Your task to perform on an android device: Search for vegetarian restaurants on Maps Image 0: 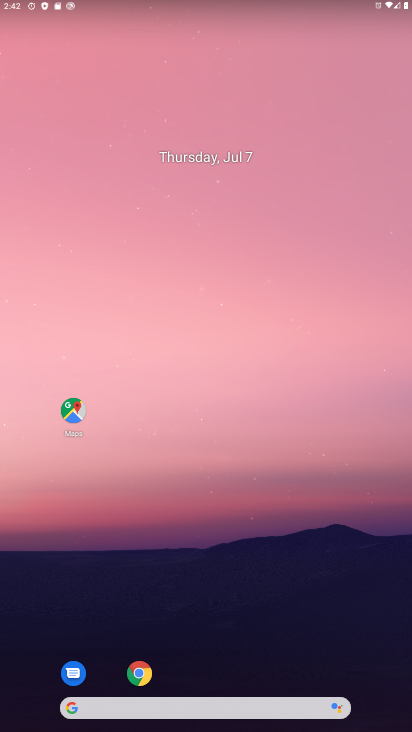
Step 0: click (72, 402)
Your task to perform on an android device: Search for vegetarian restaurants on Maps Image 1: 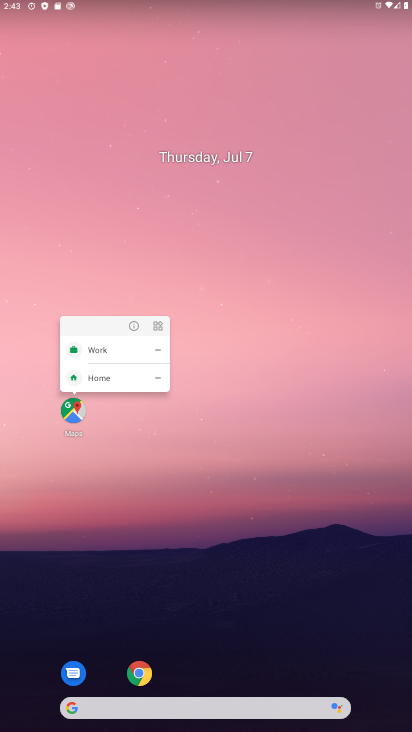
Step 1: click (200, 626)
Your task to perform on an android device: Search for vegetarian restaurants on Maps Image 2: 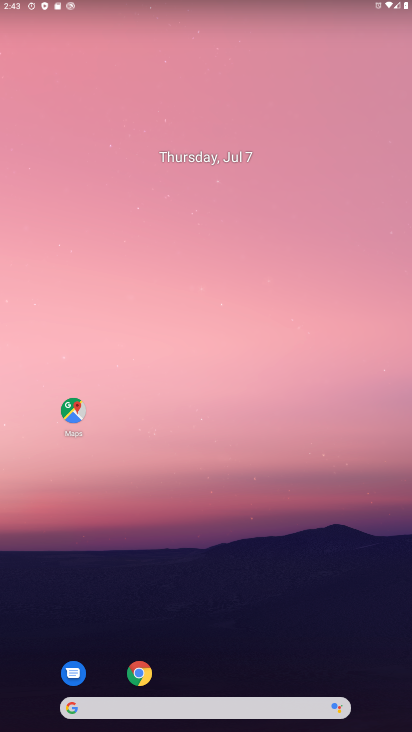
Step 2: drag from (200, 644) to (187, 132)
Your task to perform on an android device: Search for vegetarian restaurants on Maps Image 3: 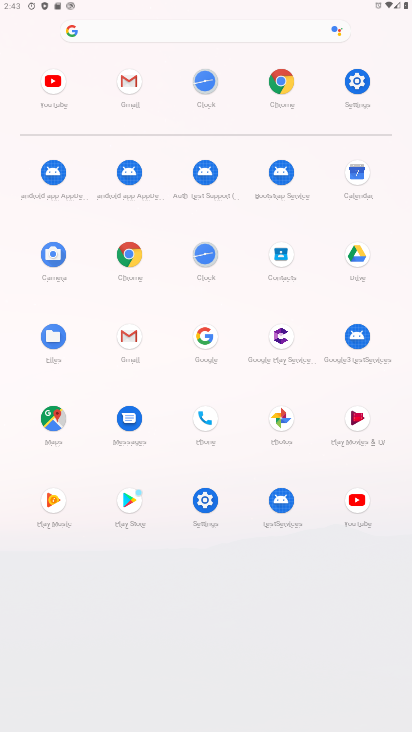
Step 3: click (59, 422)
Your task to perform on an android device: Search for vegetarian restaurants on Maps Image 4: 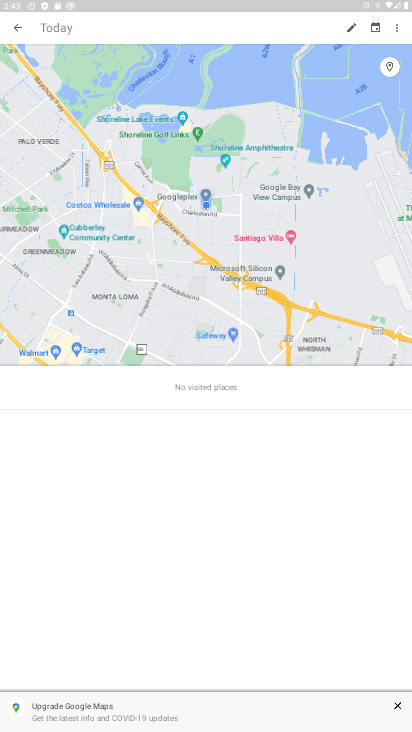
Step 4: click (5, 29)
Your task to perform on an android device: Search for vegetarian restaurants on Maps Image 5: 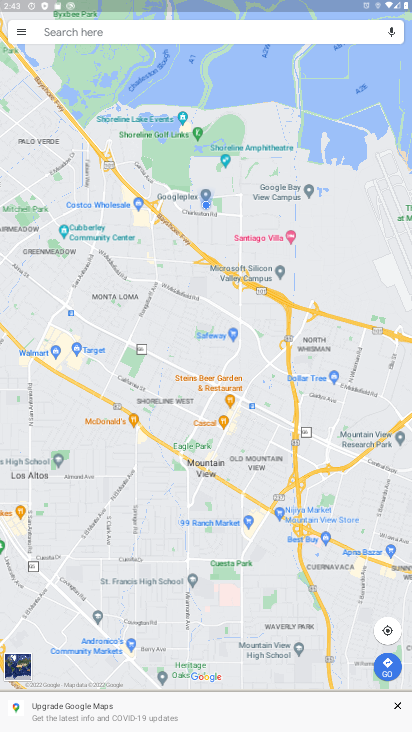
Step 5: click (74, 42)
Your task to perform on an android device: Search for vegetarian restaurants on Maps Image 6: 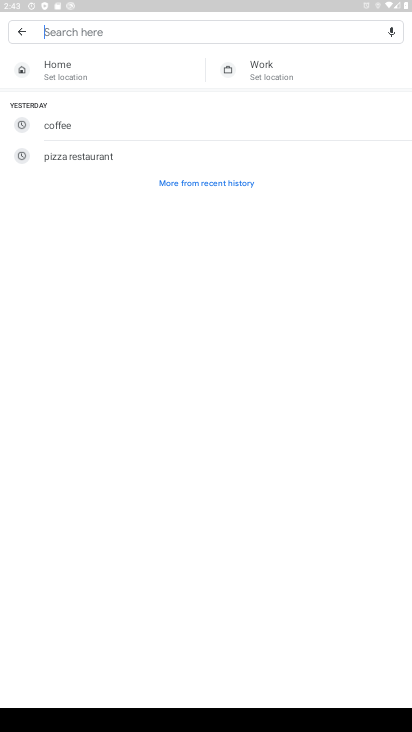
Step 6: type "vegetarian restaurants"
Your task to perform on an android device: Search for vegetarian restaurants on Maps Image 7: 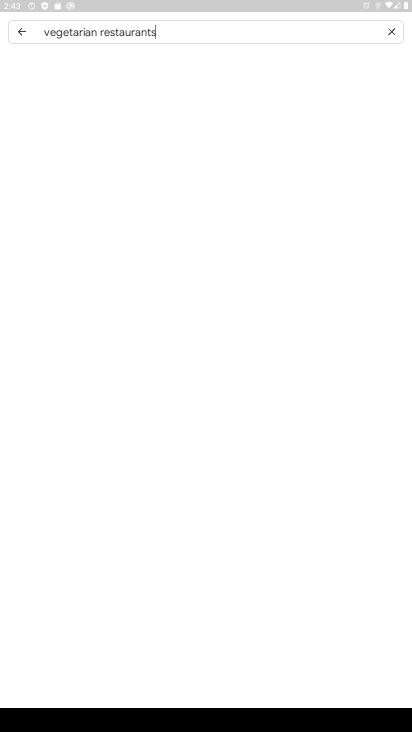
Step 7: type ""
Your task to perform on an android device: Search for vegetarian restaurants on Maps Image 8: 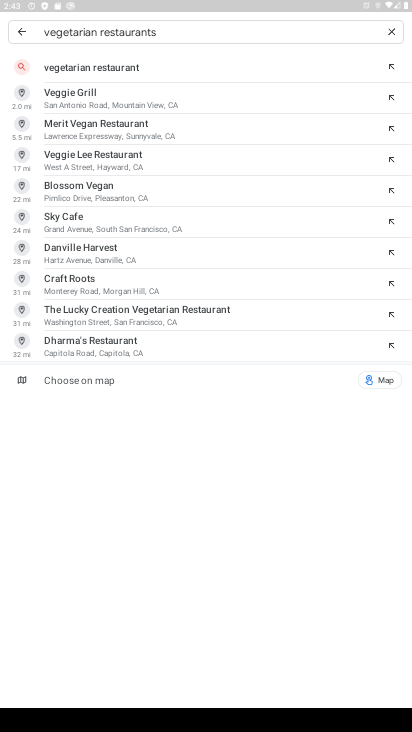
Step 8: click (86, 72)
Your task to perform on an android device: Search for vegetarian restaurants on Maps Image 9: 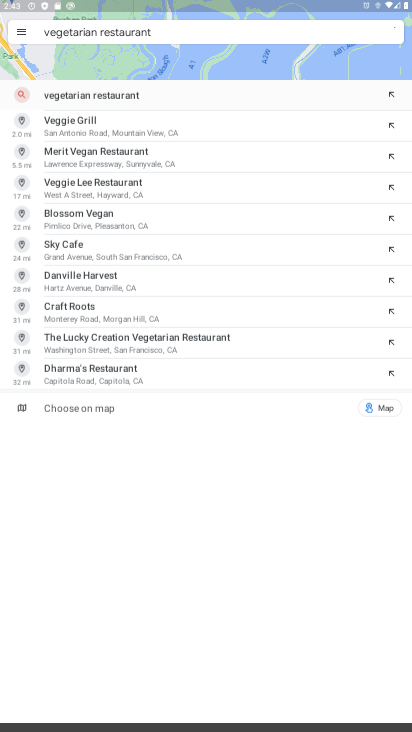
Step 9: task complete